Your task to perform on an android device: change the clock display to analog Image 0: 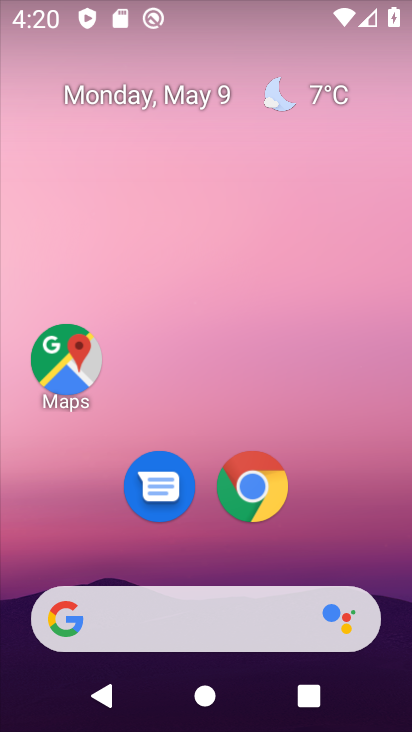
Step 0: drag from (198, 564) to (201, 50)
Your task to perform on an android device: change the clock display to analog Image 1: 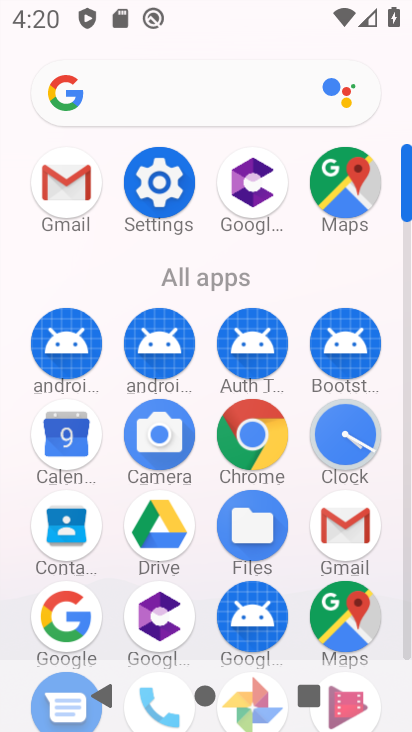
Step 1: click (357, 435)
Your task to perform on an android device: change the clock display to analog Image 2: 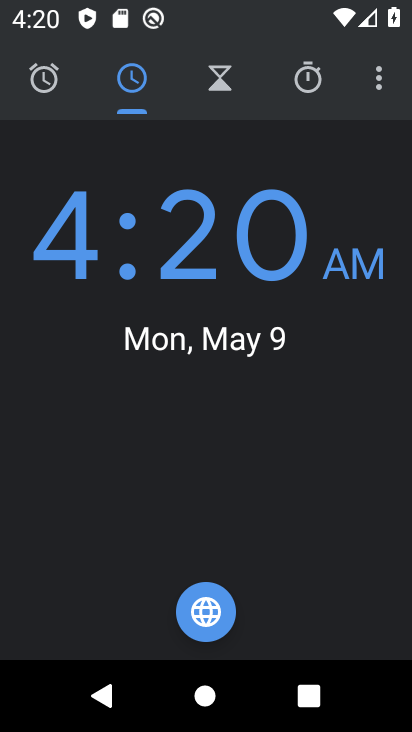
Step 2: click (378, 92)
Your task to perform on an android device: change the clock display to analog Image 3: 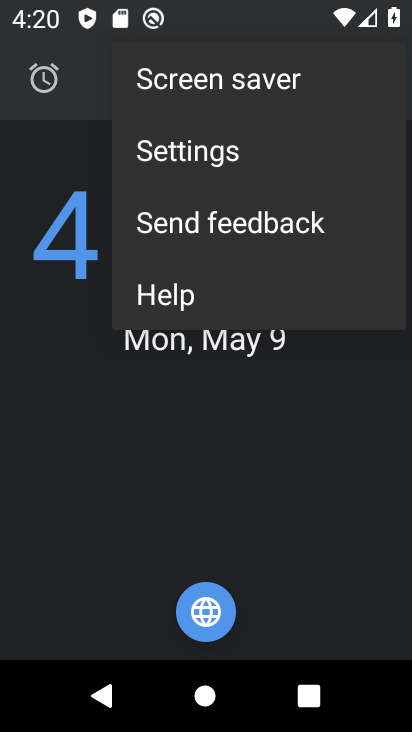
Step 3: click (237, 147)
Your task to perform on an android device: change the clock display to analog Image 4: 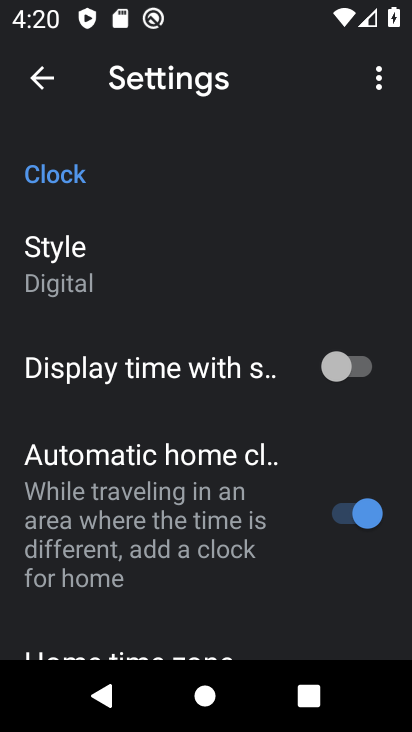
Step 4: click (98, 277)
Your task to perform on an android device: change the clock display to analog Image 5: 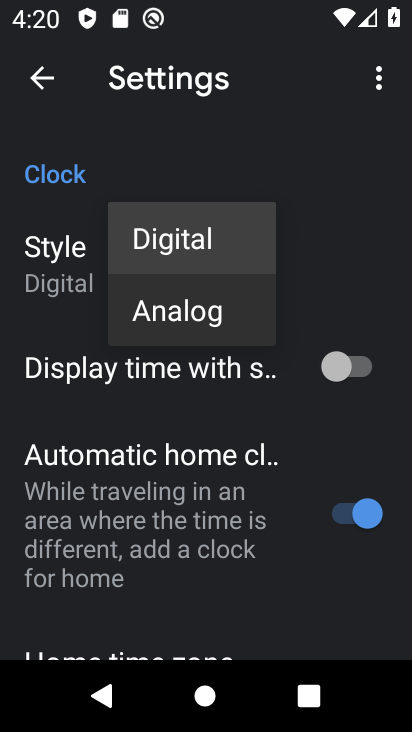
Step 5: click (149, 314)
Your task to perform on an android device: change the clock display to analog Image 6: 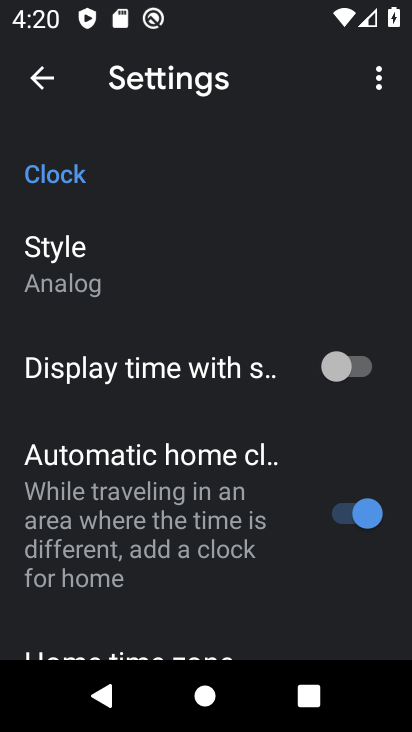
Step 6: task complete